Your task to perform on an android device: read, delete, or share a saved page in the chrome app Image 0: 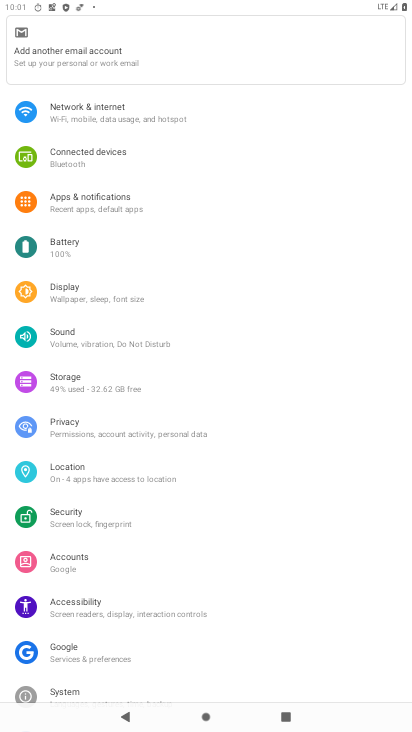
Step 0: press home button
Your task to perform on an android device: read, delete, or share a saved page in the chrome app Image 1: 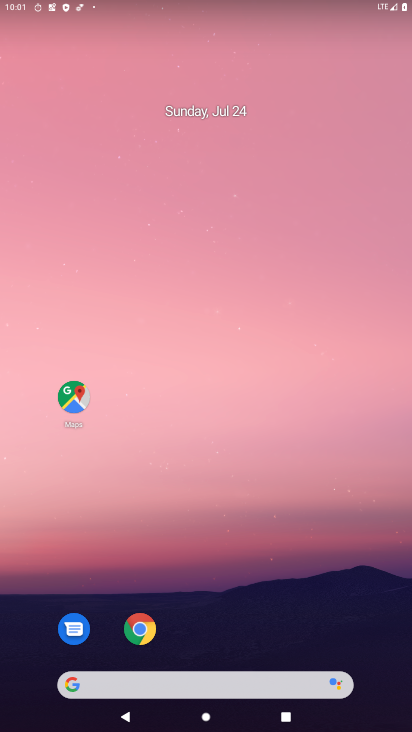
Step 1: drag from (289, 605) to (213, 119)
Your task to perform on an android device: read, delete, or share a saved page in the chrome app Image 2: 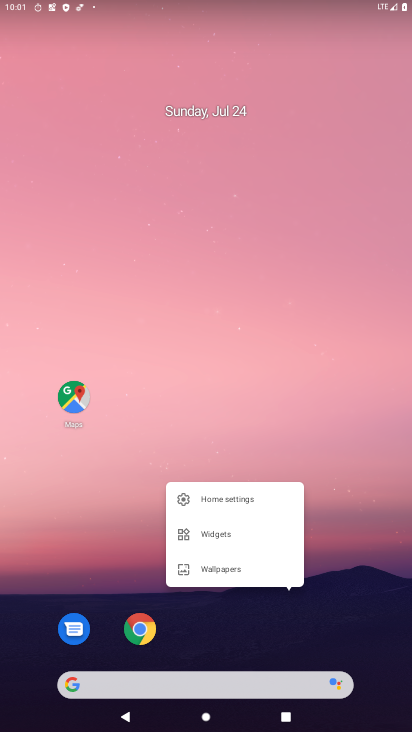
Step 2: press home button
Your task to perform on an android device: read, delete, or share a saved page in the chrome app Image 3: 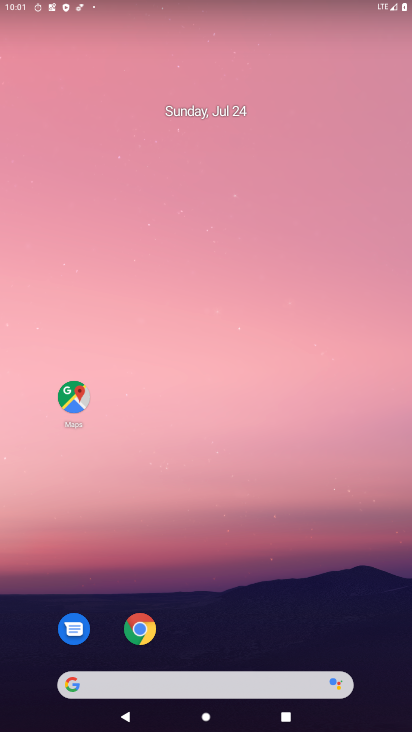
Step 3: drag from (240, 633) to (227, 130)
Your task to perform on an android device: read, delete, or share a saved page in the chrome app Image 4: 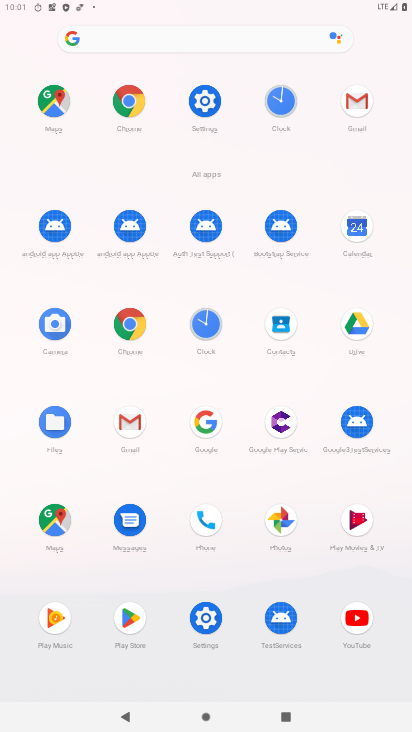
Step 4: click (125, 96)
Your task to perform on an android device: read, delete, or share a saved page in the chrome app Image 5: 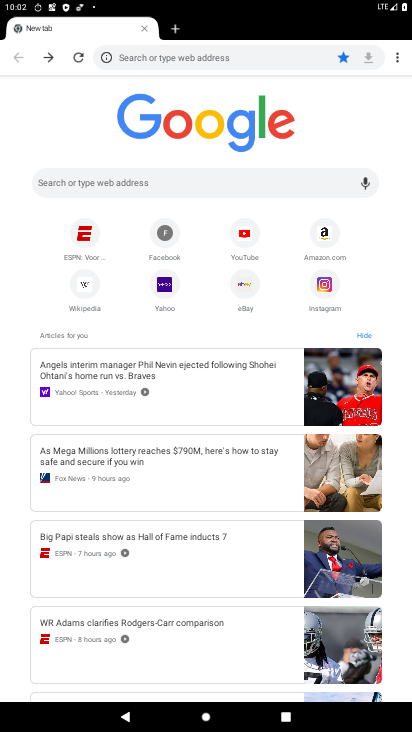
Step 5: task complete